Your task to perform on an android device: install app "DoorDash - Food Delivery" Image 0: 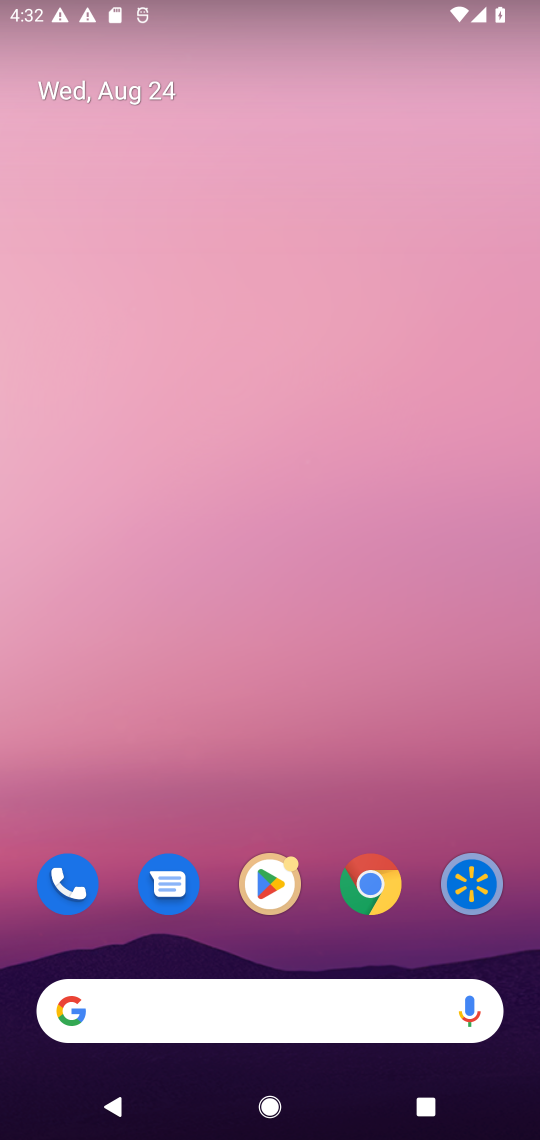
Step 0: click (254, 888)
Your task to perform on an android device: install app "DoorDash - Food Delivery" Image 1: 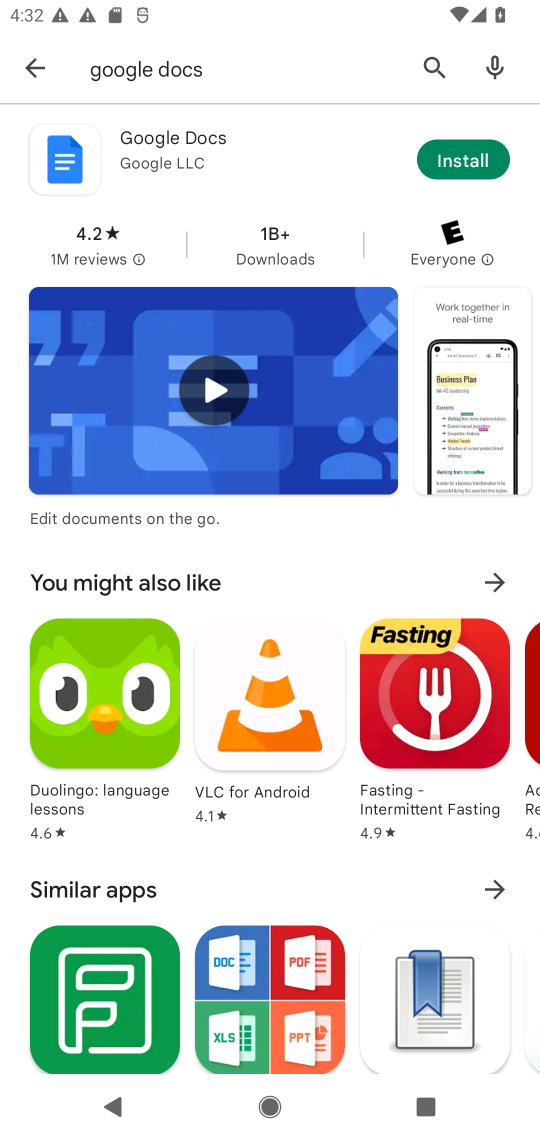
Step 1: click (30, 58)
Your task to perform on an android device: install app "DoorDash - Food Delivery" Image 2: 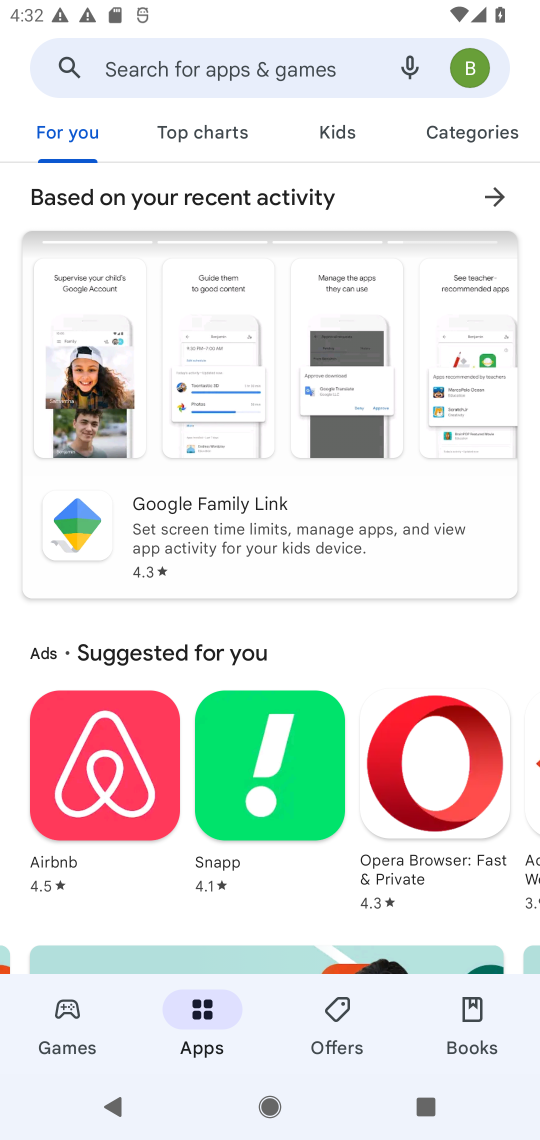
Step 2: click (216, 76)
Your task to perform on an android device: install app "DoorDash - Food Delivery" Image 3: 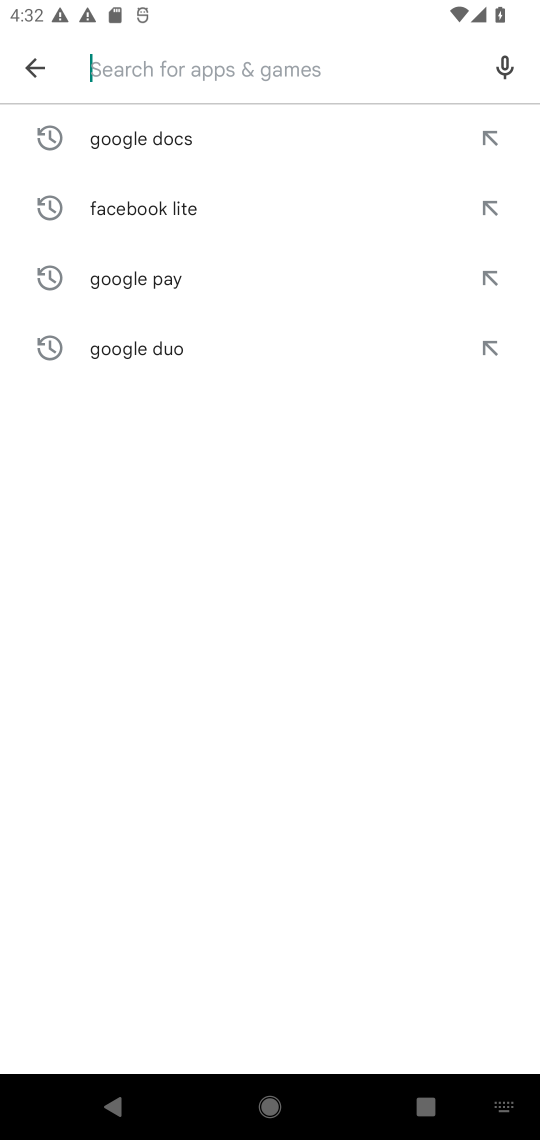
Step 3: type "DoorDash - Food Delivery"
Your task to perform on an android device: install app "DoorDash - Food Delivery" Image 4: 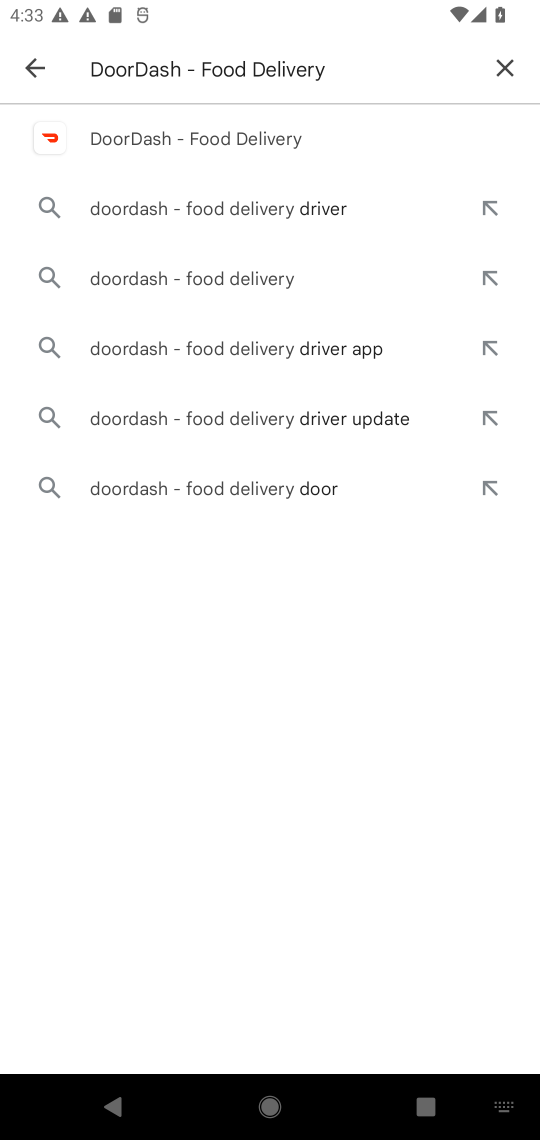
Step 4: click (86, 139)
Your task to perform on an android device: install app "DoorDash - Food Delivery" Image 5: 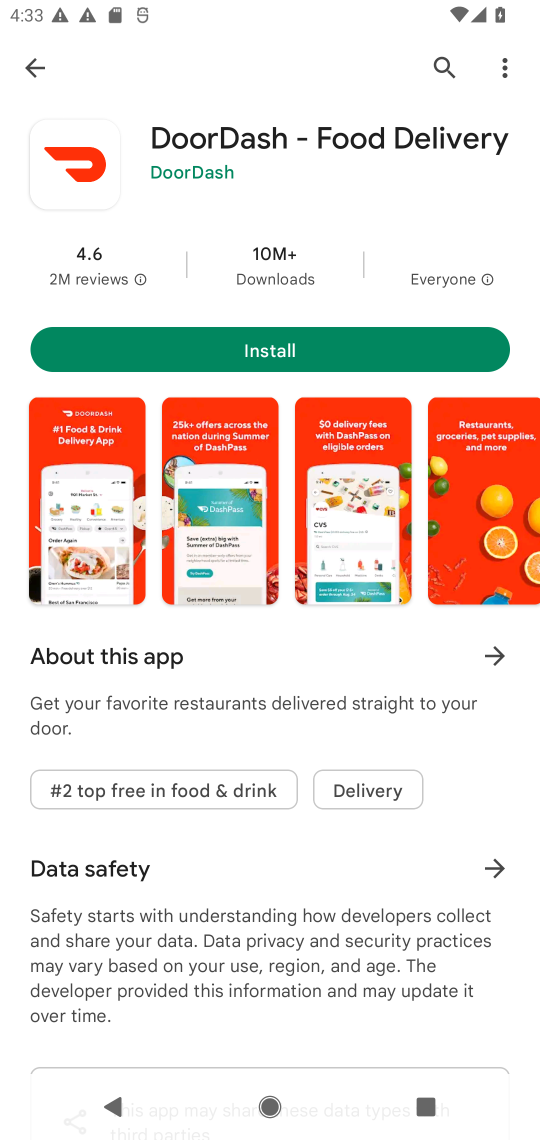
Step 5: click (275, 357)
Your task to perform on an android device: install app "DoorDash - Food Delivery" Image 6: 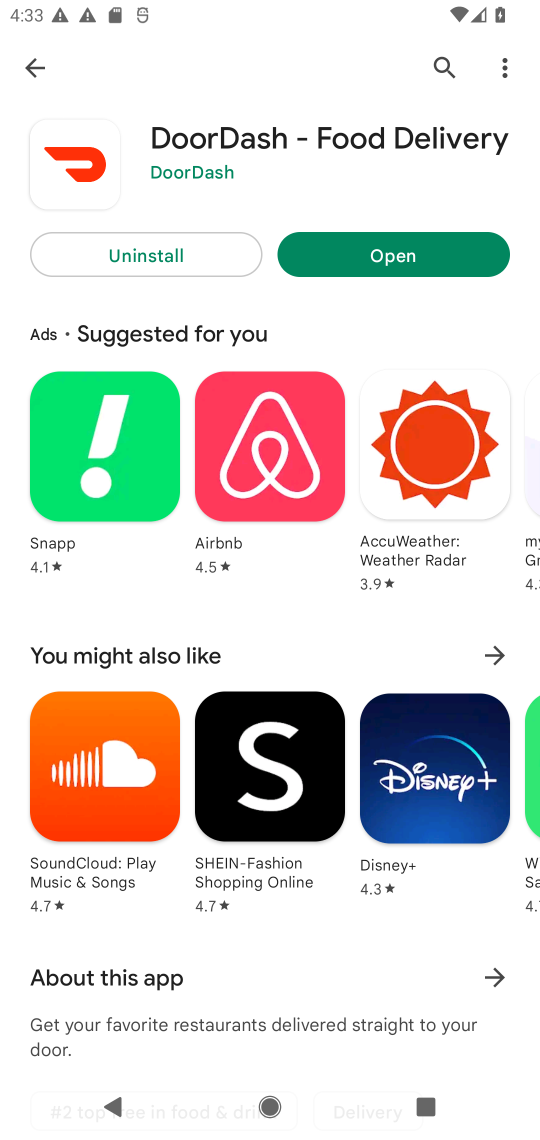
Step 6: click (412, 238)
Your task to perform on an android device: install app "DoorDash - Food Delivery" Image 7: 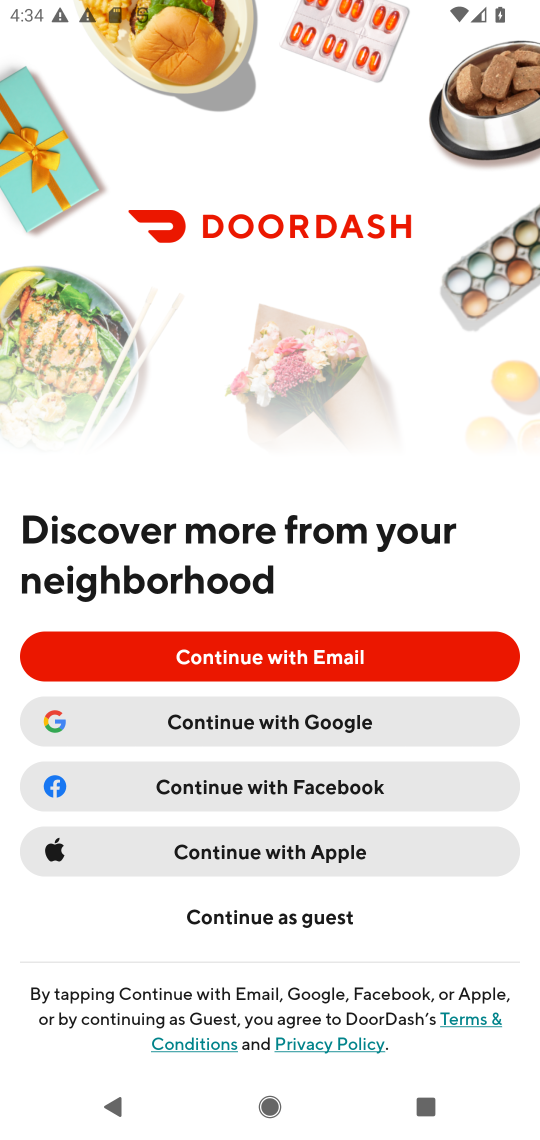
Step 7: task complete